Your task to perform on an android device: Open the stopwatch Image 0: 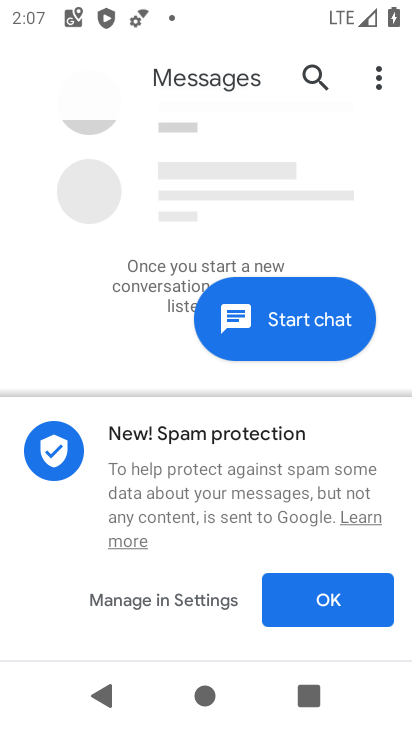
Step 0: press home button
Your task to perform on an android device: Open the stopwatch Image 1: 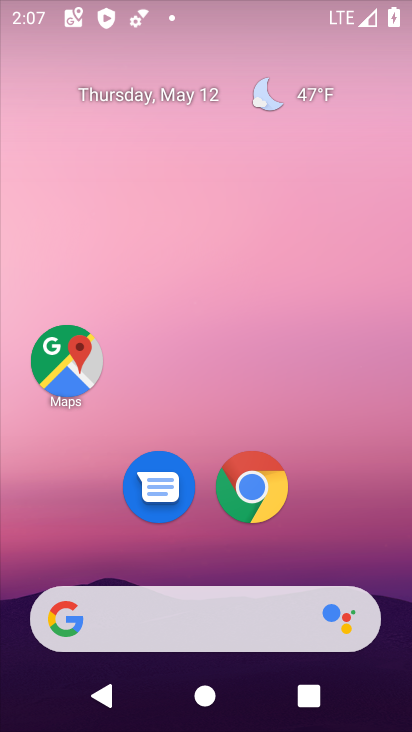
Step 1: drag from (343, 532) to (264, 131)
Your task to perform on an android device: Open the stopwatch Image 2: 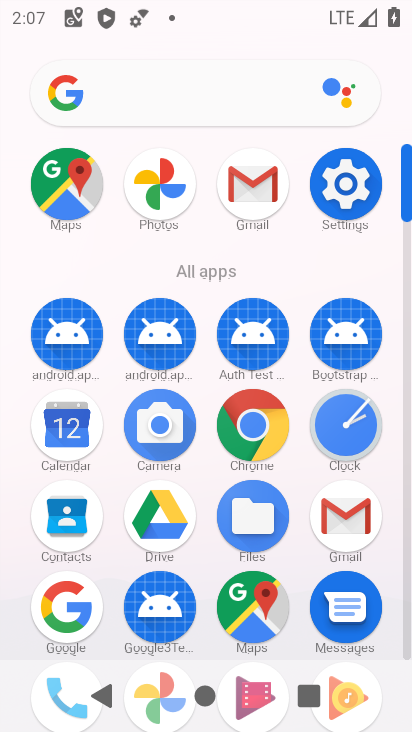
Step 2: click (341, 415)
Your task to perform on an android device: Open the stopwatch Image 3: 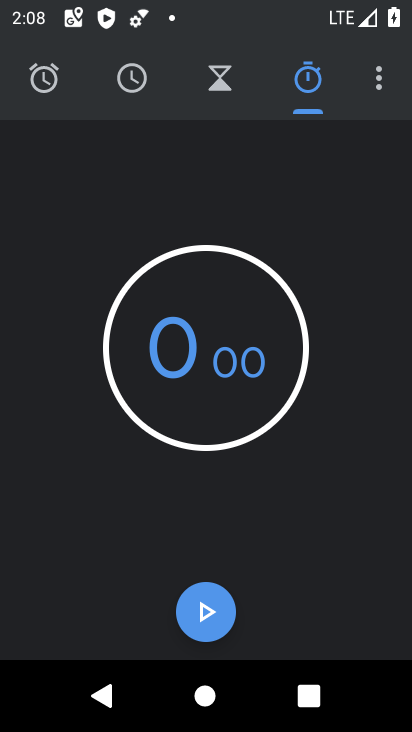
Step 3: task complete